Your task to perform on an android device: Open display settings Image 0: 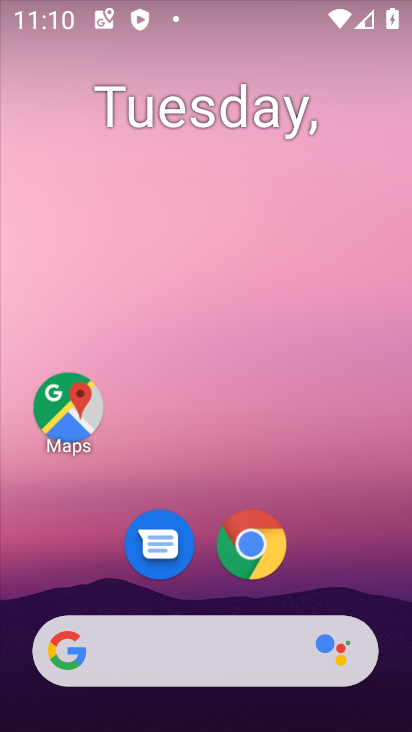
Step 0: drag from (396, 628) to (269, 31)
Your task to perform on an android device: Open display settings Image 1: 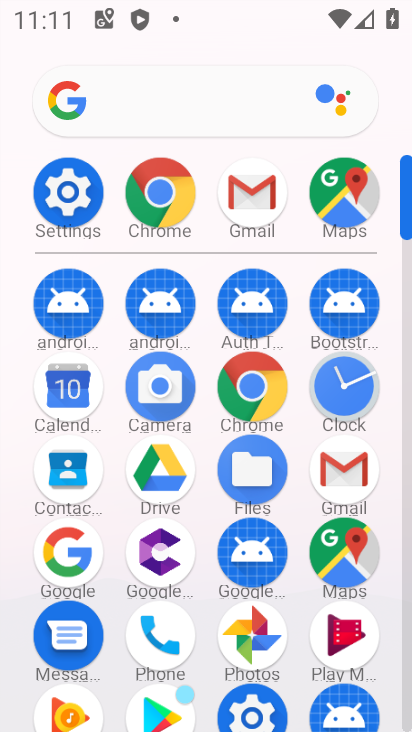
Step 1: click (270, 694)
Your task to perform on an android device: Open display settings Image 2: 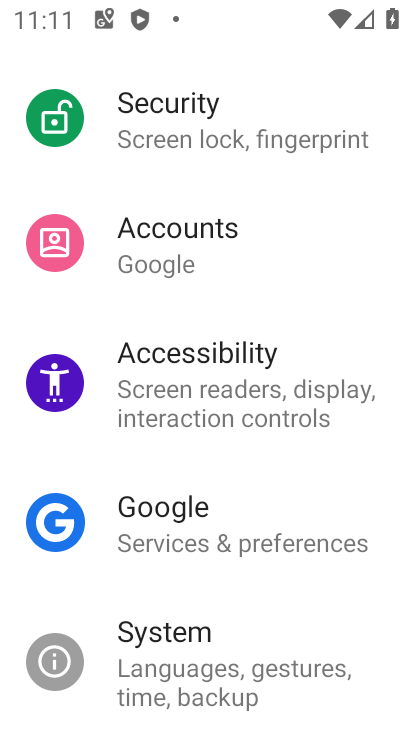
Step 2: drag from (215, 186) to (233, 559)
Your task to perform on an android device: Open display settings Image 3: 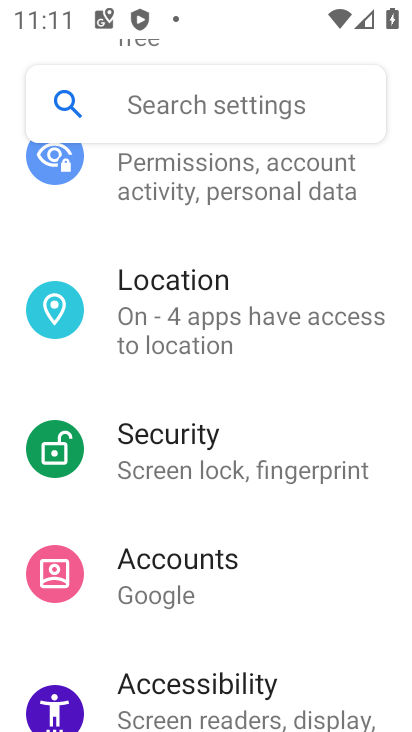
Step 3: drag from (227, 225) to (216, 603)
Your task to perform on an android device: Open display settings Image 4: 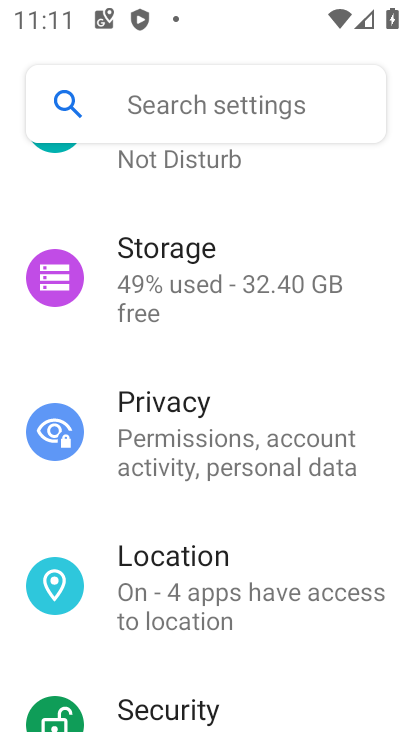
Step 4: drag from (233, 317) to (213, 603)
Your task to perform on an android device: Open display settings Image 5: 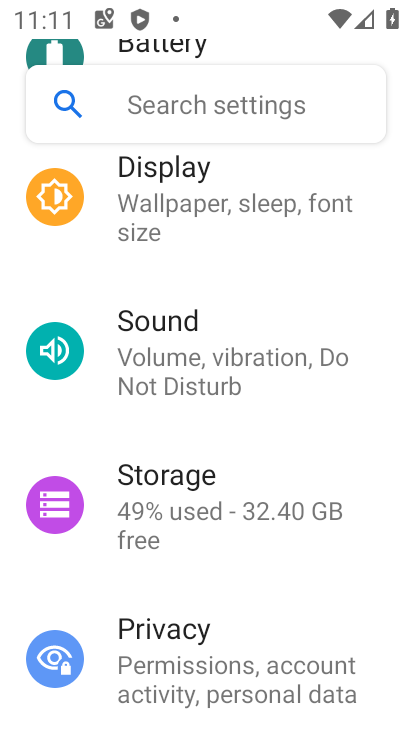
Step 5: click (193, 250)
Your task to perform on an android device: Open display settings Image 6: 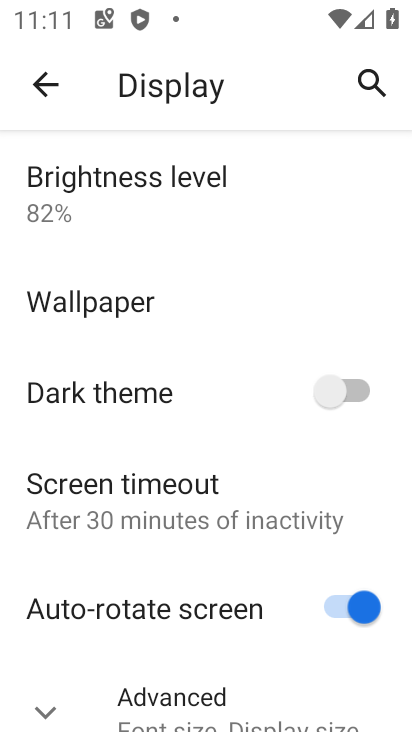
Step 6: task complete